Your task to perform on an android device: Open Android settings Image 0: 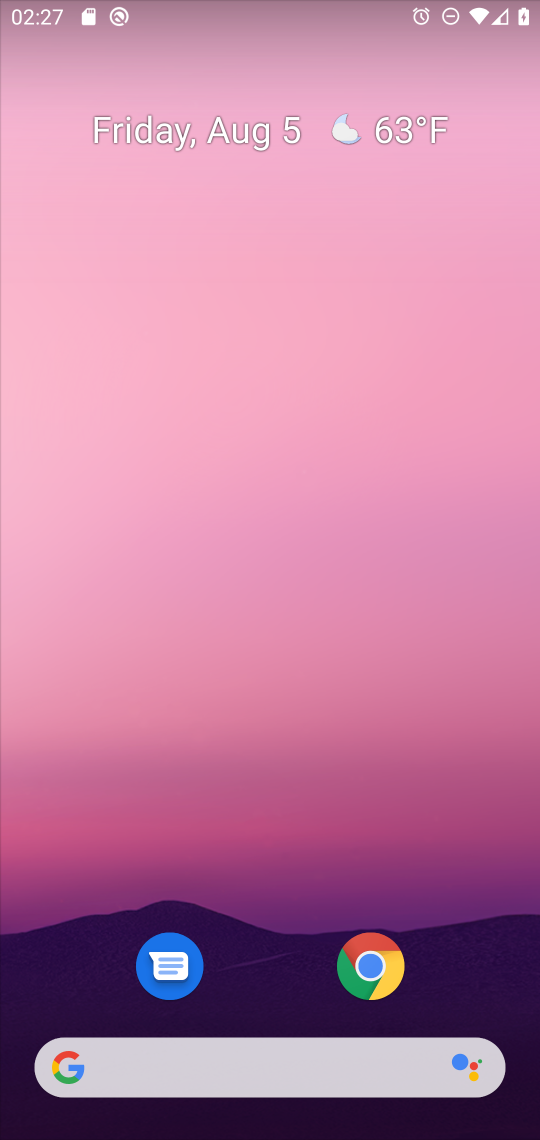
Step 0: drag from (271, 959) to (275, 45)
Your task to perform on an android device: Open Android settings Image 1: 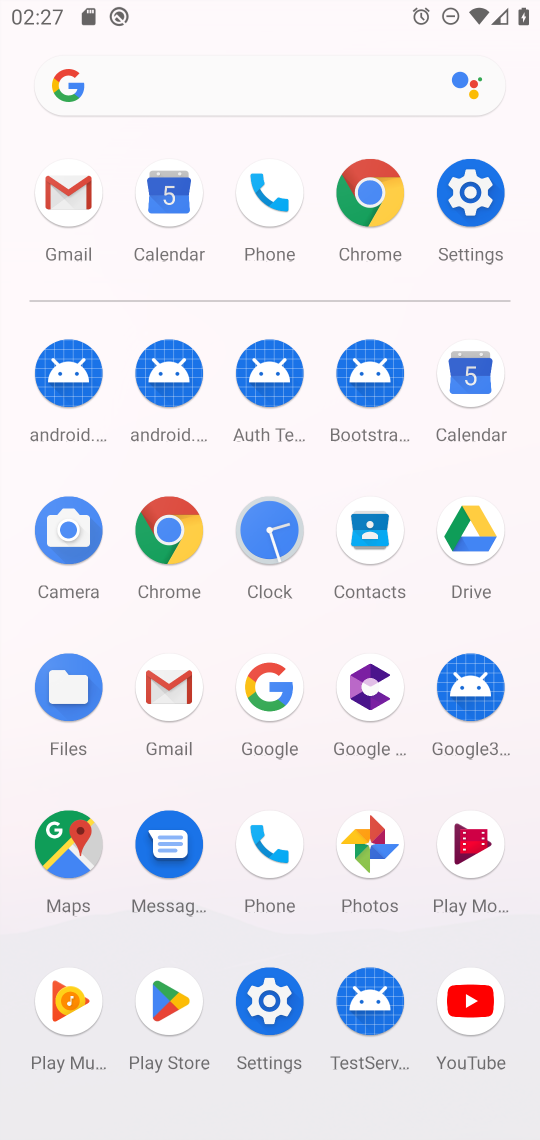
Step 1: click (472, 182)
Your task to perform on an android device: Open Android settings Image 2: 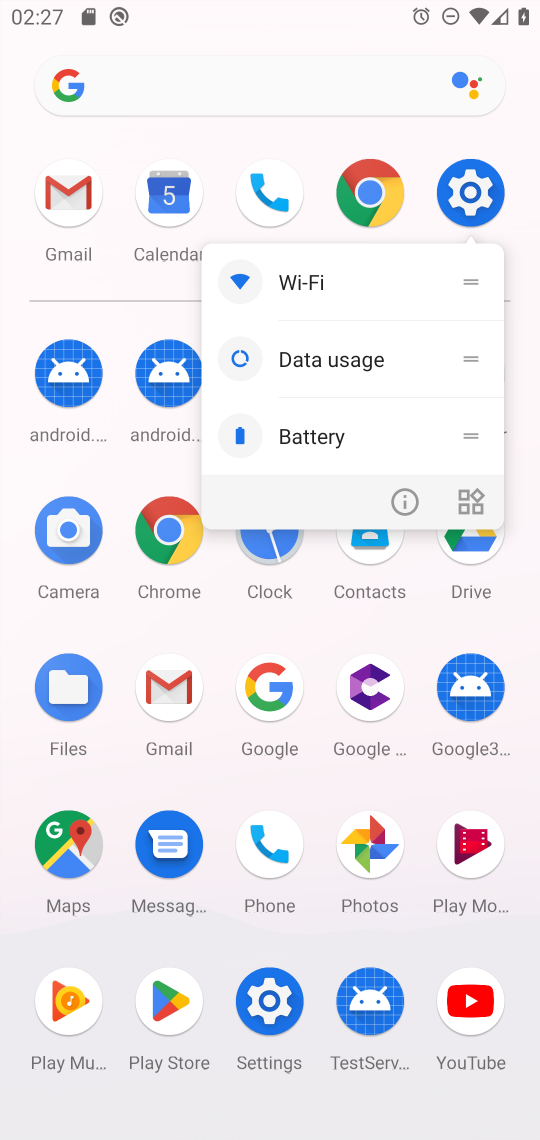
Step 2: click (472, 184)
Your task to perform on an android device: Open Android settings Image 3: 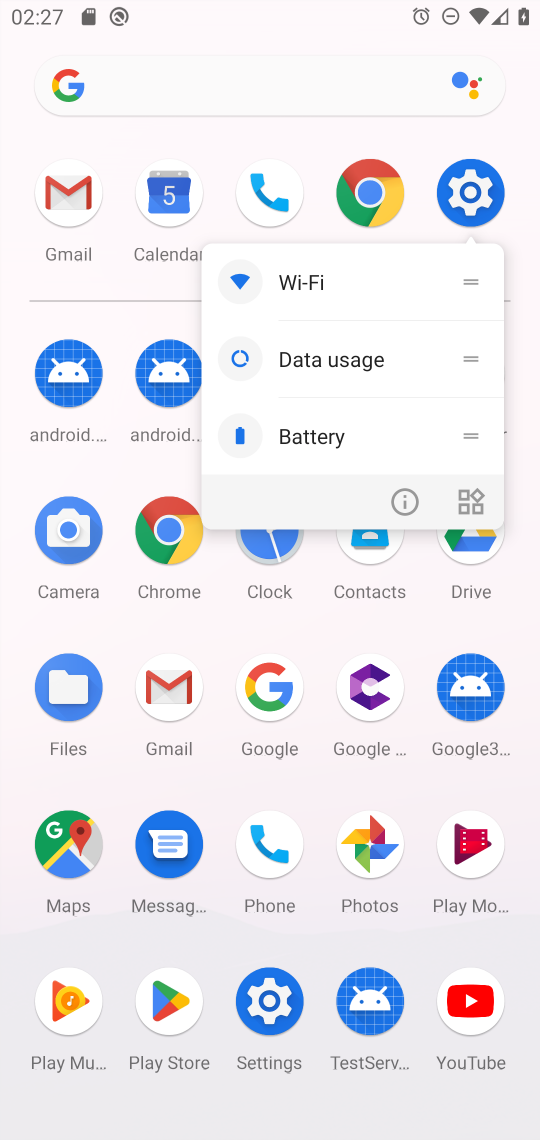
Step 3: click (472, 184)
Your task to perform on an android device: Open Android settings Image 4: 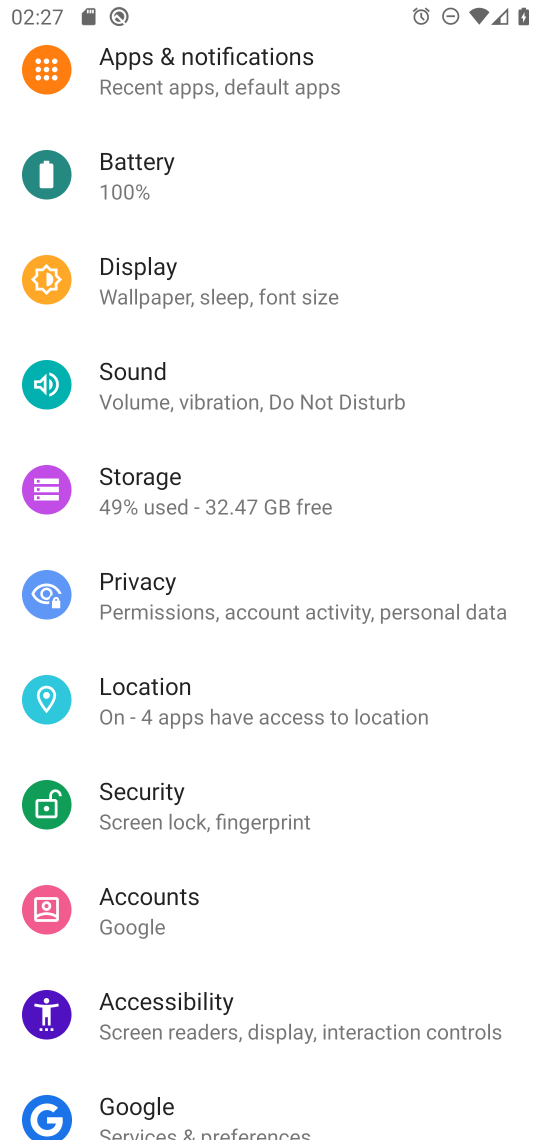
Step 4: drag from (253, 834) to (277, 202)
Your task to perform on an android device: Open Android settings Image 5: 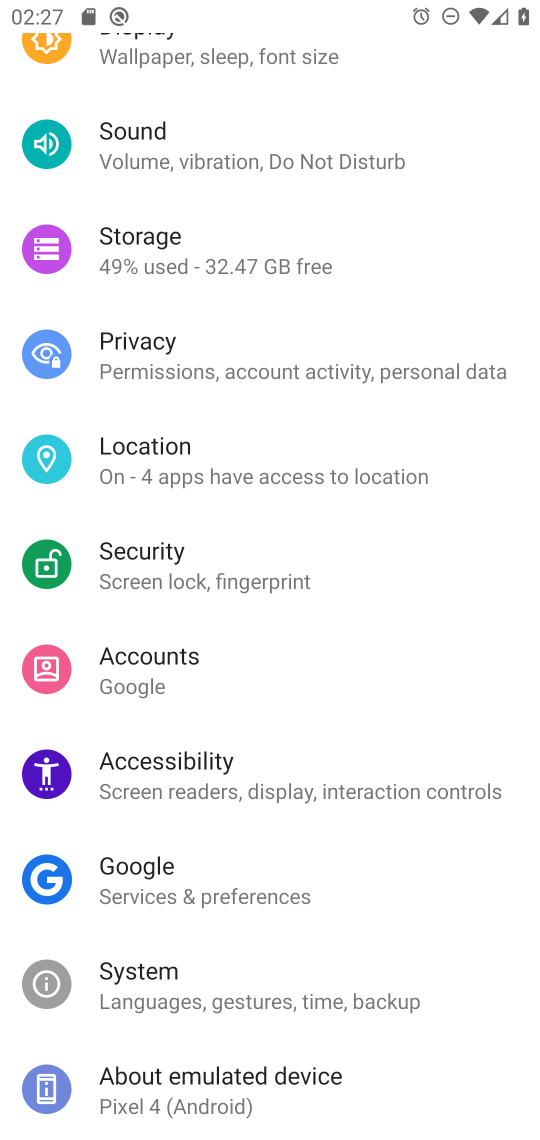
Step 5: click (242, 1078)
Your task to perform on an android device: Open Android settings Image 6: 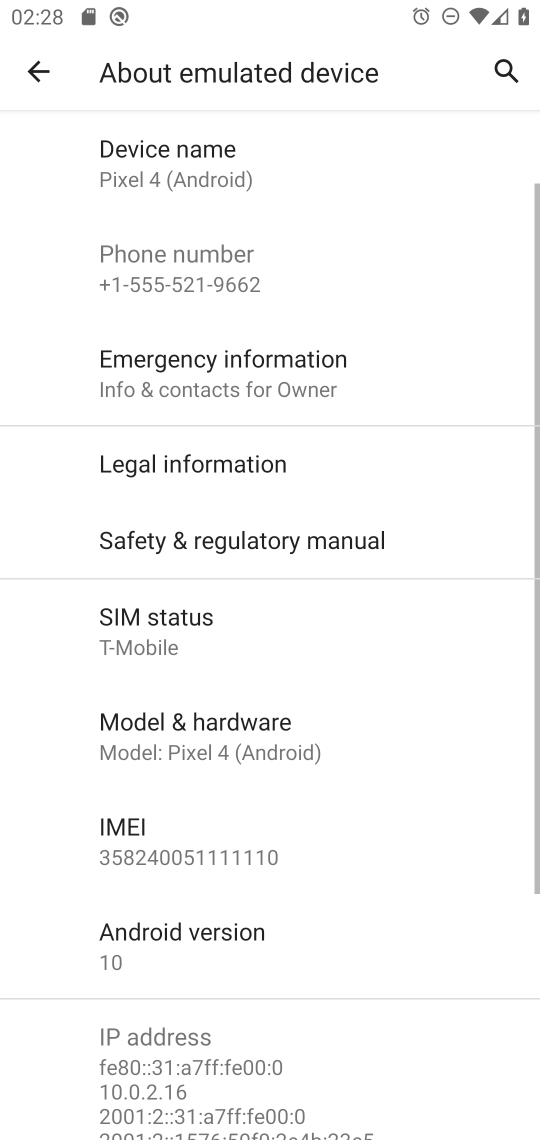
Step 6: task complete